Your task to perform on an android device: add a contact in the contacts app Image 0: 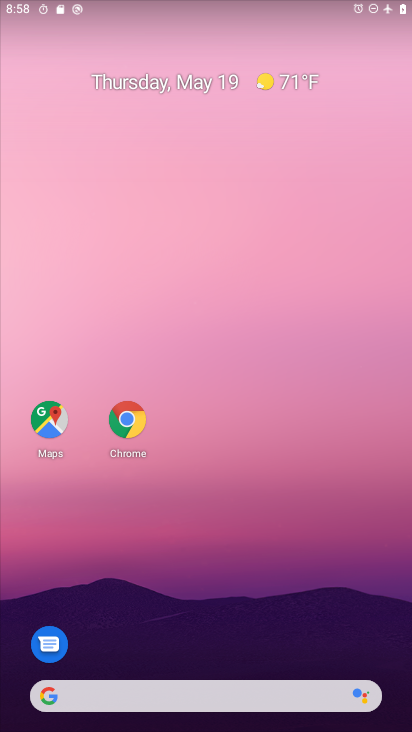
Step 0: drag from (197, 682) to (194, 288)
Your task to perform on an android device: add a contact in the contacts app Image 1: 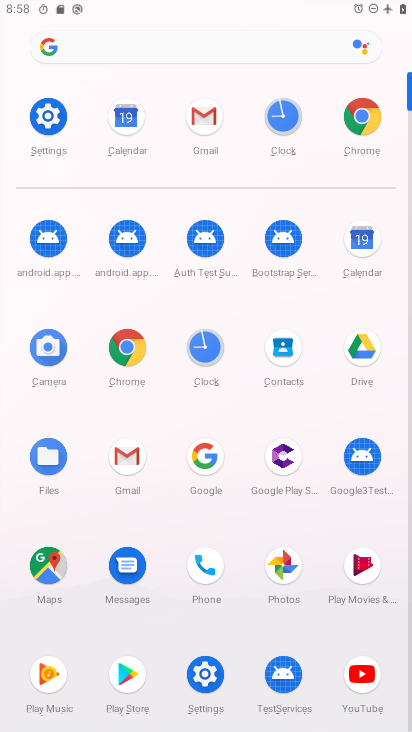
Step 1: click (294, 357)
Your task to perform on an android device: add a contact in the contacts app Image 2: 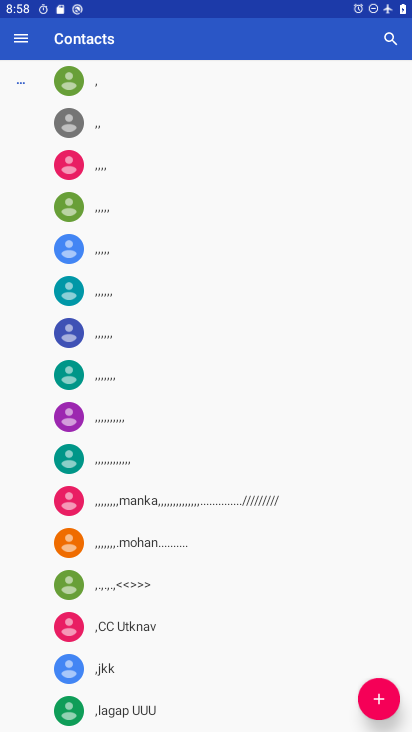
Step 2: click (383, 699)
Your task to perform on an android device: add a contact in the contacts app Image 3: 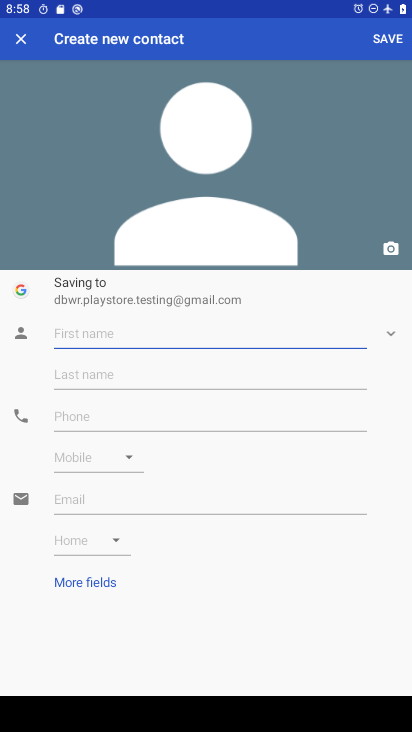
Step 3: click (103, 329)
Your task to perform on an android device: add a contact in the contacts app Image 4: 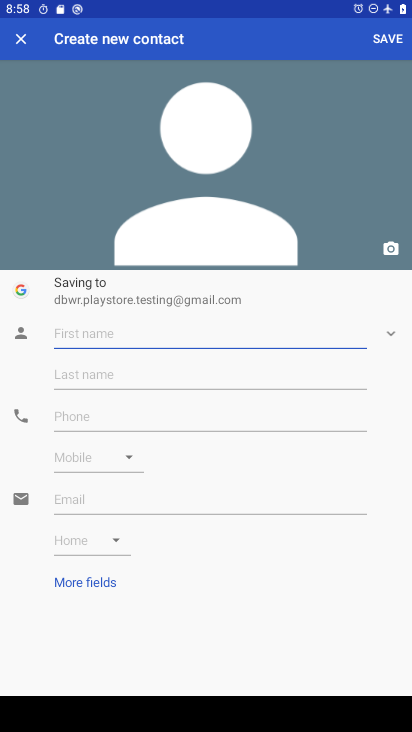
Step 4: type "ajaiii"
Your task to perform on an android device: add a contact in the contacts app Image 5: 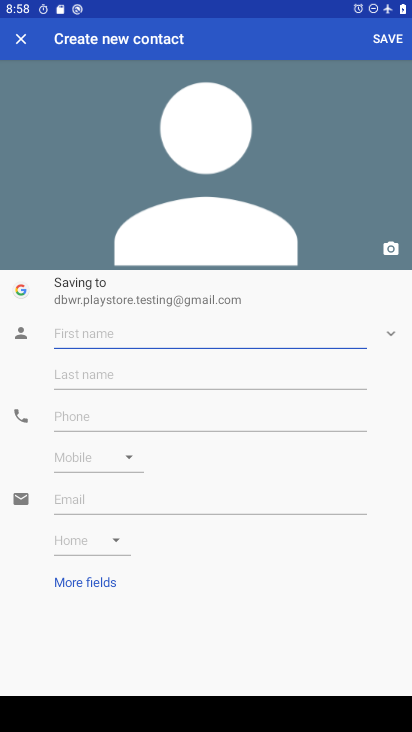
Step 5: click (93, 373)
Your task to perform on an android device: add a contact in the contacts app Image 6: 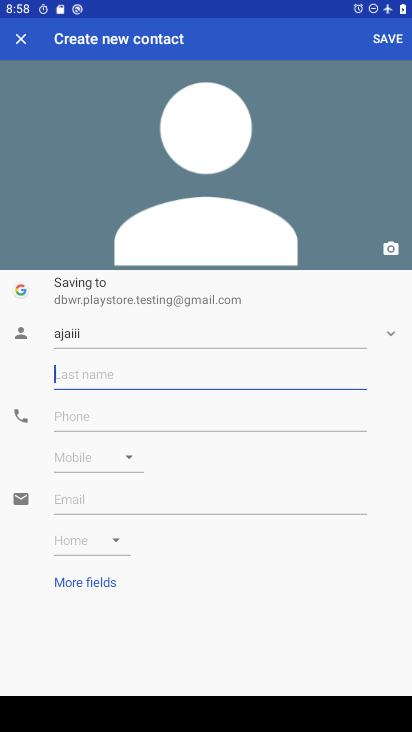
Step 6: type "khurana"
Your task to perform on an android device: add a contact in the contacts app Image 7: 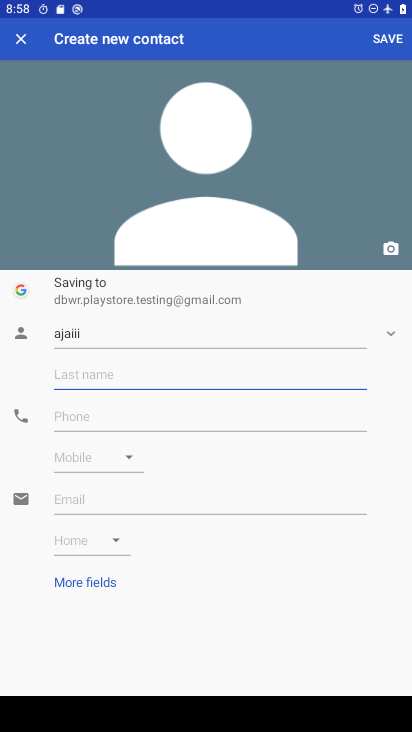
Step 7: click (67, 423)
Your task to perform on an android device: add a contact in the contacts app Image 8: 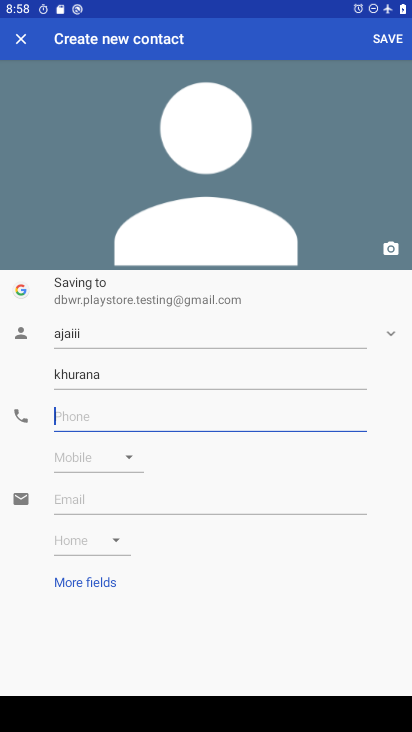
Step 8: type "7878796785"
Your task to perform on an android device: add a contact in the contacts app Image 9: 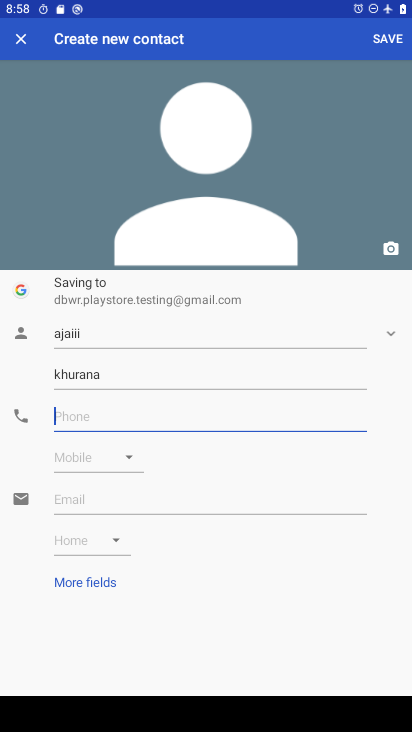
Step 9: click (83, 461)
Your task to perform on an android device: add a contact in the contacts app Image 10: 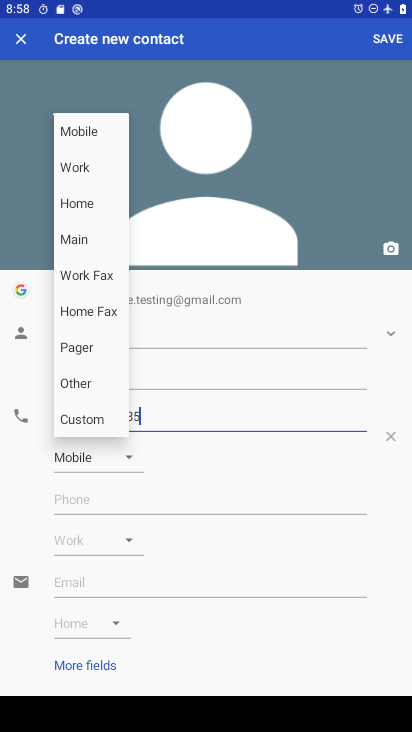
Step 10: click (89, 129)
Your task to perform on an android device: add a contact in the contacts app Image 11: 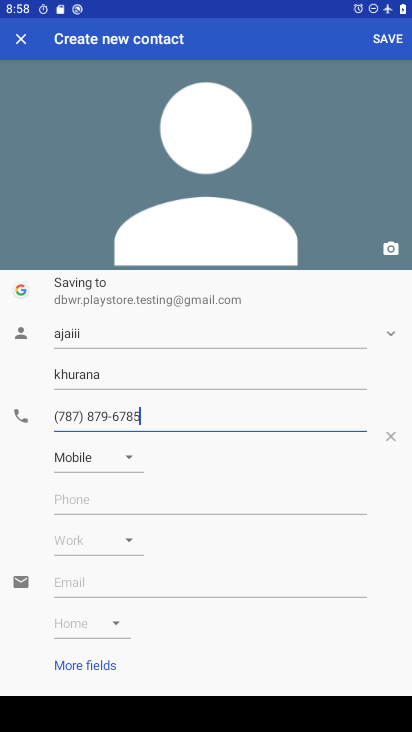
Step 11: click (400, 39)
Your task to perform on an android device: add a contact in the contacts app Image 12: 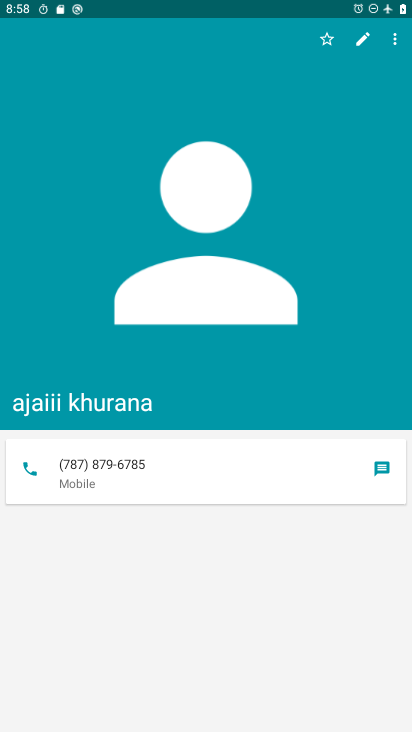
Step 12: task complete